Your task to perform on an android device: Go to Yahoo.com Image 0: 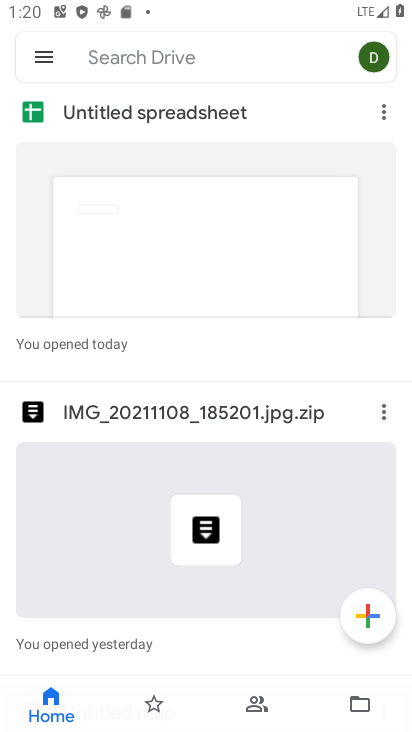
Step 0: press home button
Your task to perform on an android device: Go to Yahoo.com Image 1: 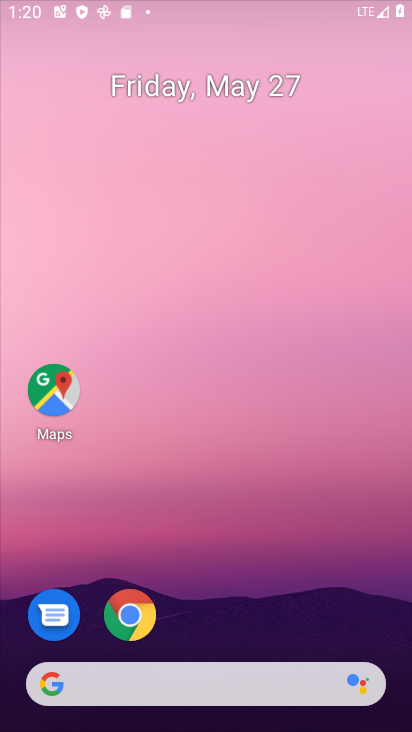
Step 1: drag from (250, 670) to (277, 0)
Your task to perform on an android device: Go to Yahoo.com Image 2: 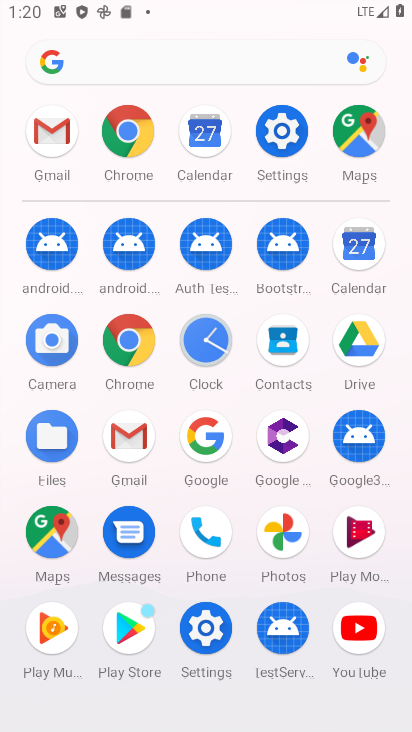
Step 2: click (128, 353)
Your task to perform on an android device: Go to Yahoo.com Image 3: 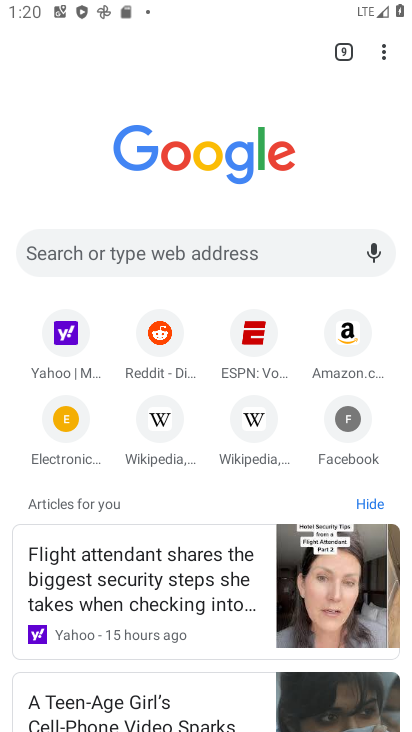
Step 3: click (74, 360)
Your task to perform on an android device: Go to Yahoo.com Image 4: 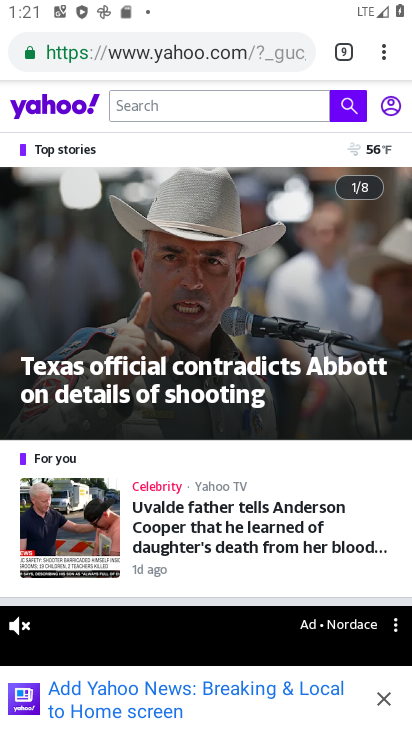
Step 4: task complete